Your task to perform on an android device: open a new tab in the chrome app Image 0: 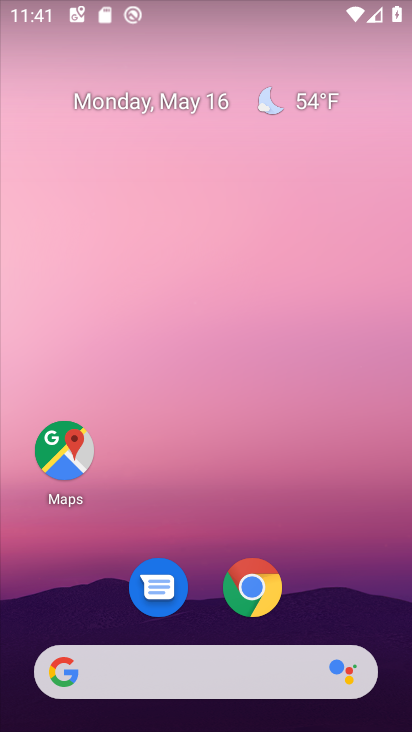
Step 0: click (253, 577)
Your task to perform on an android device: open a new tab in the chrome app Image 1: 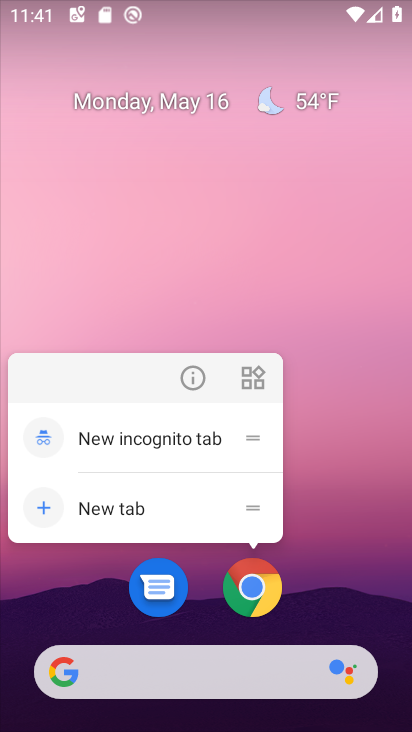
Step 1: click (253, 577)
Your task to perform on an android device: open a new tab in the chrome app Image 2: 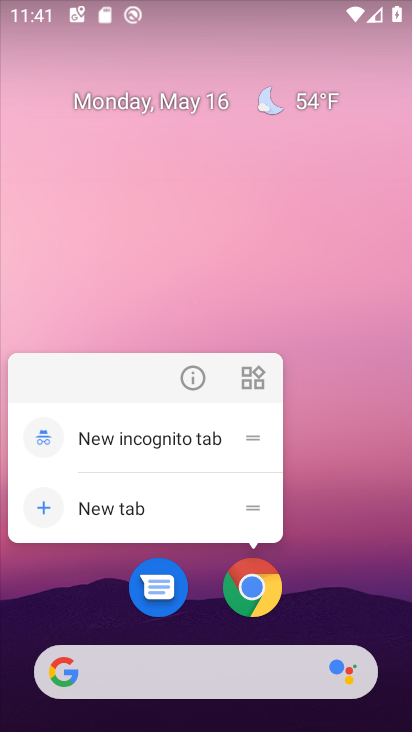
Step 2: click (253, 578)
Your task to perform on an android device: open a new tab in the chrome app Image 3: 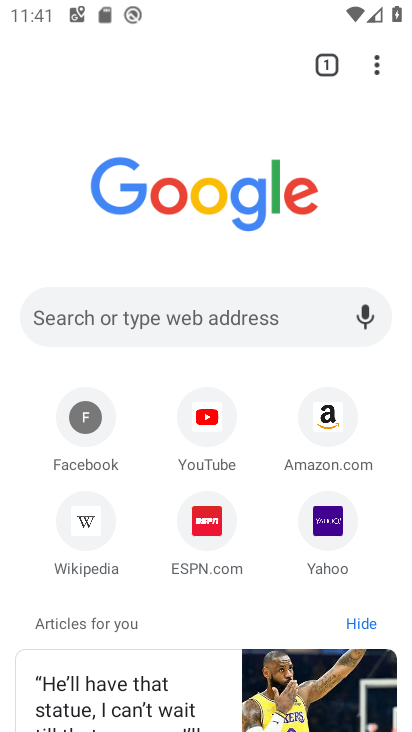
Step 3: click (378, 65)
Your task to perform on an android device: open a new tab in the chrome app Image 4: 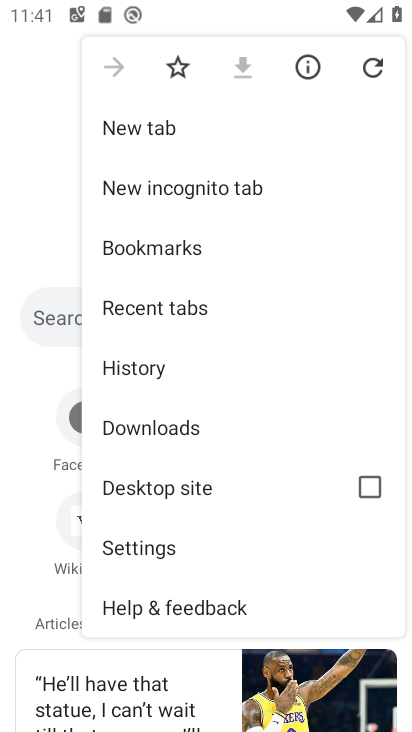
Step 4: click (137, 133)
Your task to perform on an android device: open a new tab in the chrome app Image 5: 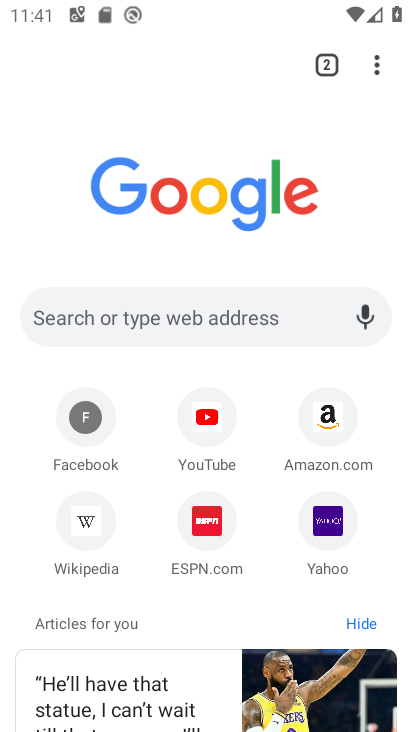
Step 5: task complete